Your task to perform on an android device: Is it going to rain tomorrow? Image 0: 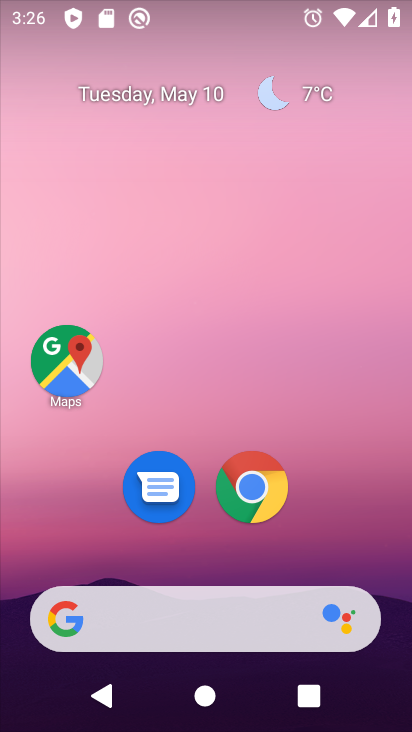
Step 0: click (319, 87)
Your task to perform on an android device: Is it going to rain tomorrow? Image 1: 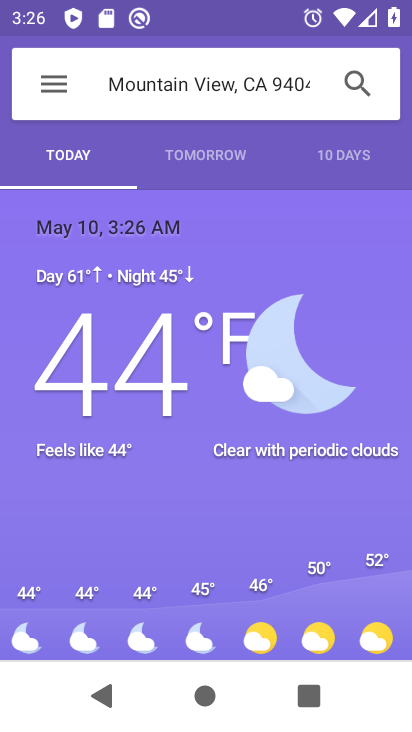
Step 1: click (236, 161)
Your task to perform on an android device: Is it going to rain tomorrow? Image 2: 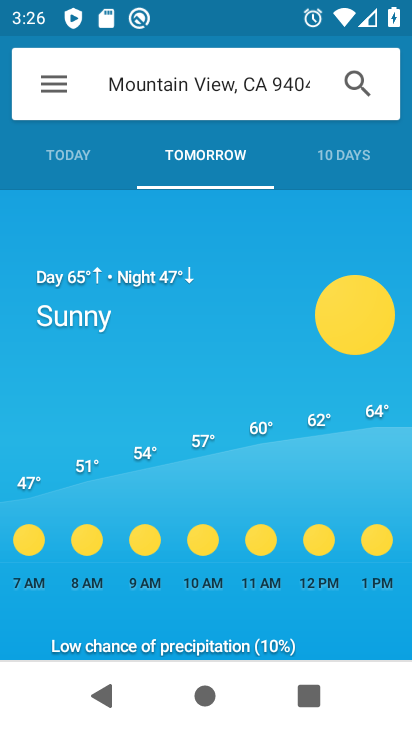
Step 2: task complete